Your task to perform on an android device: When is my next appointment? Image 0: 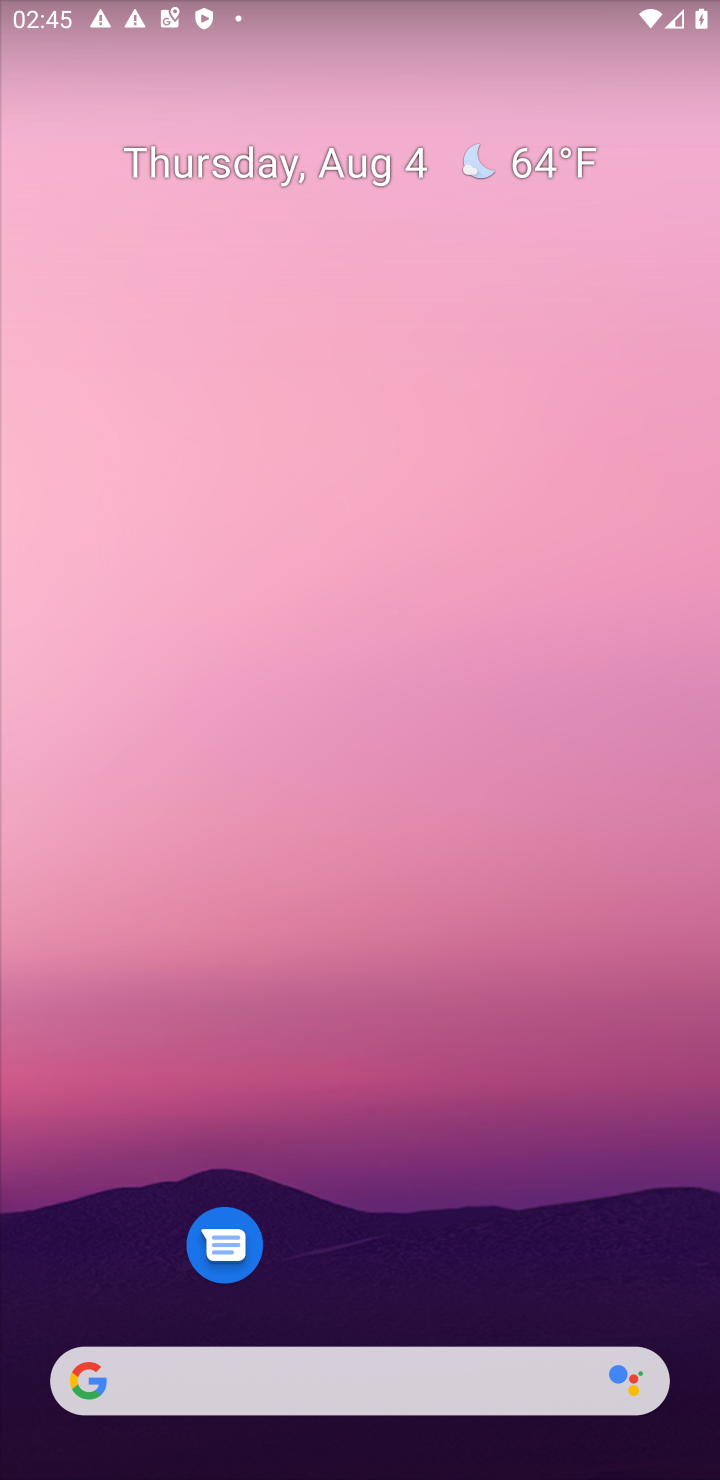
Step 0: drag from (378, 1050) to (415, 263)
Your task to perform on an android device: When is my next appointment? Image 1: 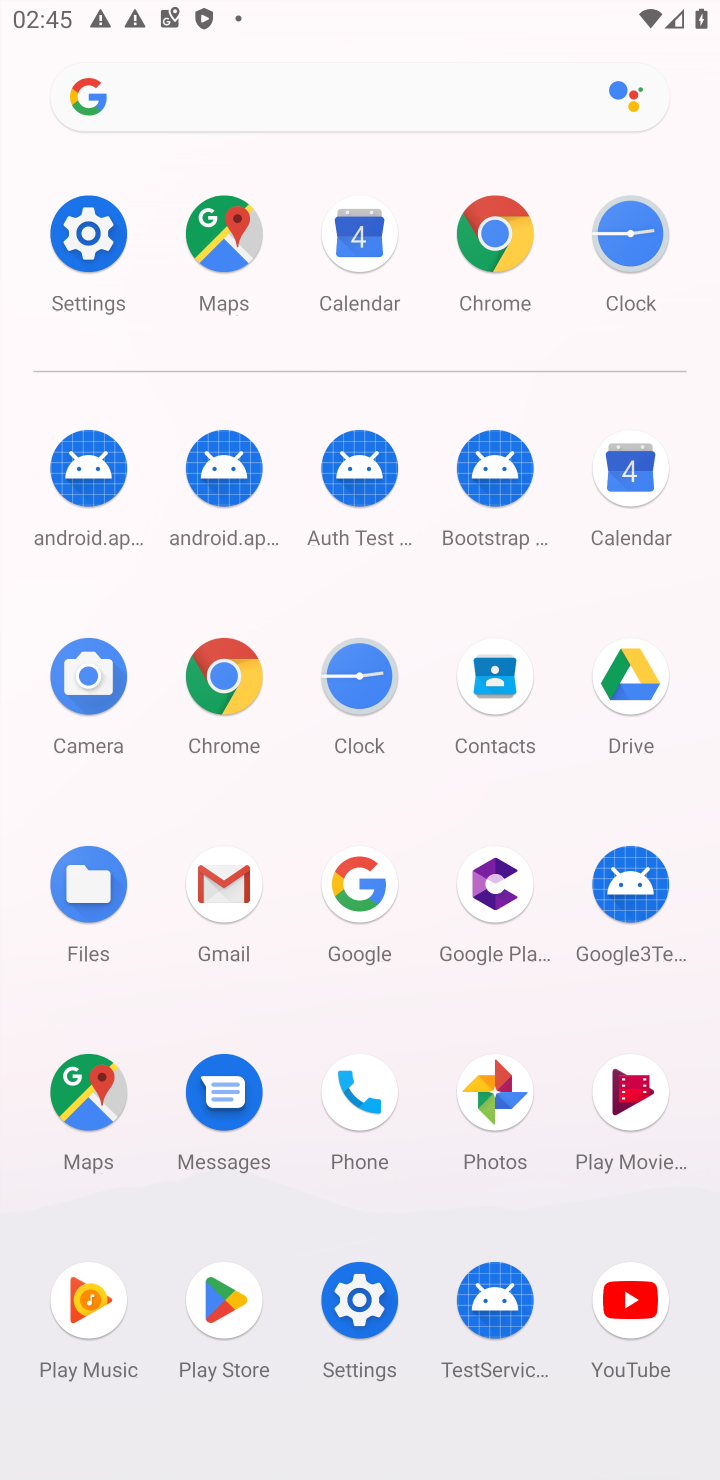
Step 1: click (635, 486)
Your task to perform on an android device: When is my next appointment? Image 2: 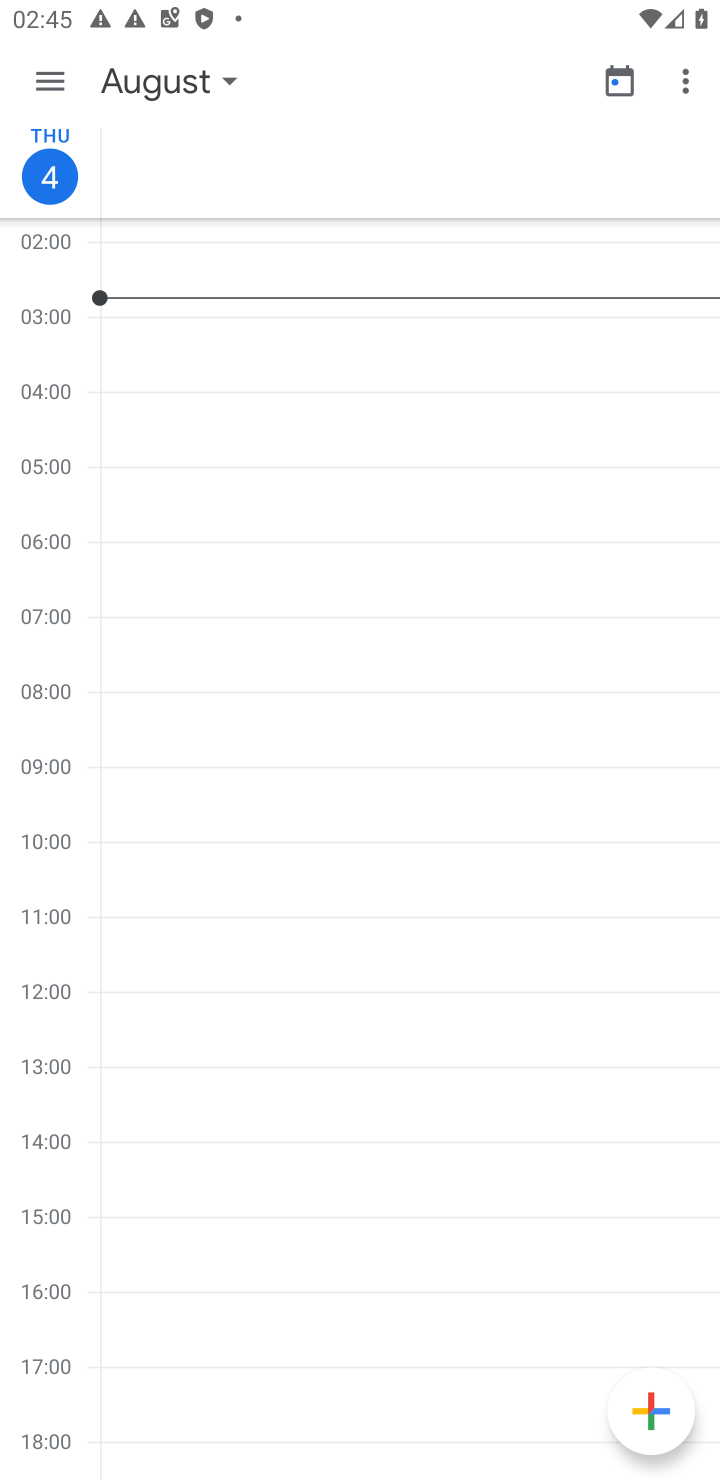
Step 2: task complete